Your task to perform on an android device: Go to eBay Image 0: 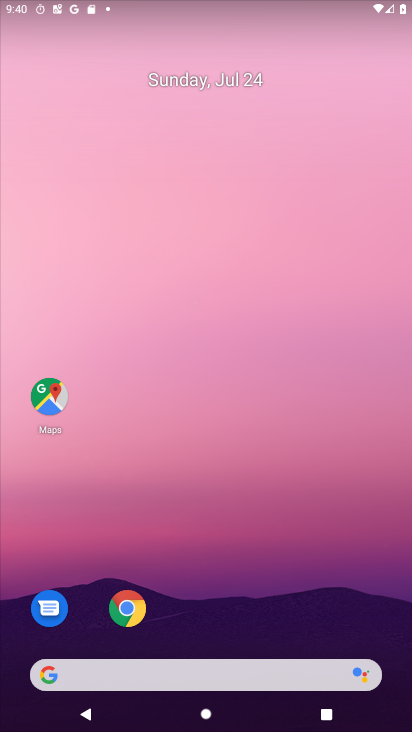
Step 0: click (146, 677)
Your task to perform on an android device: Go to eBay Image 1: 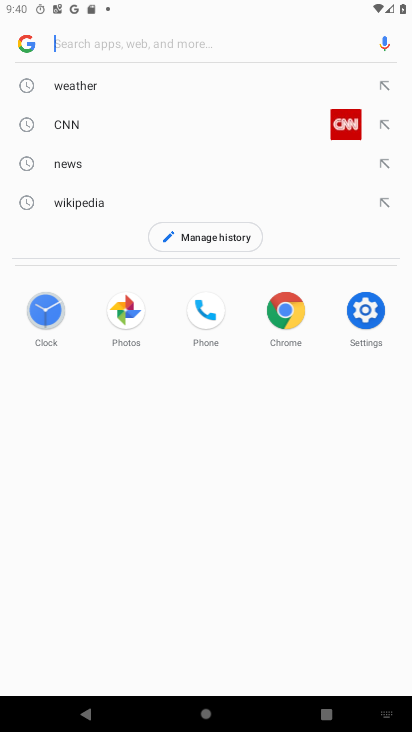
Step 1: type "ebay"
Your task to perform on an android device: Go to eBay Image 2: 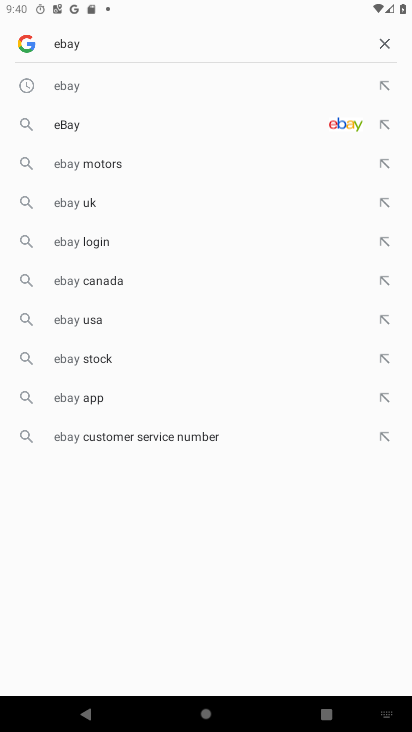
Step 2: click (292, 127)
Your task to perform on an android device: Go to eBay Image 3: 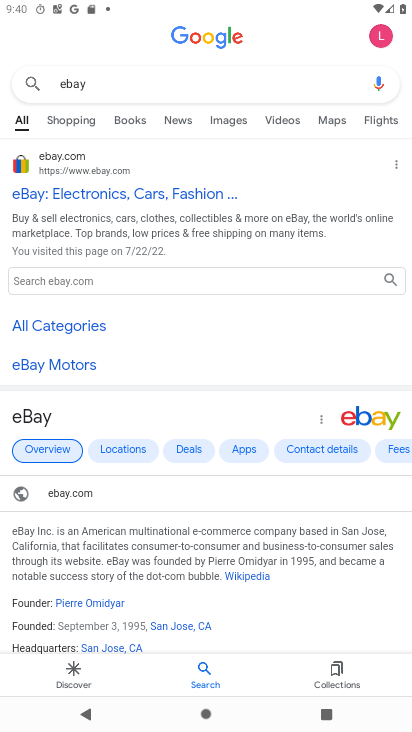
Step 3: click (189, 204)
Your task to perform on an android device: Go to eBay Image 4: 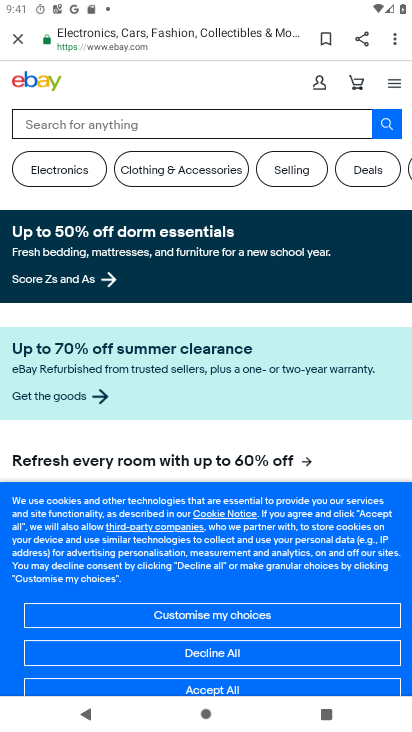
Step 4: task complete